Your task to perform on an android device: Search for vegetarian restaurants on Maps Image 0: 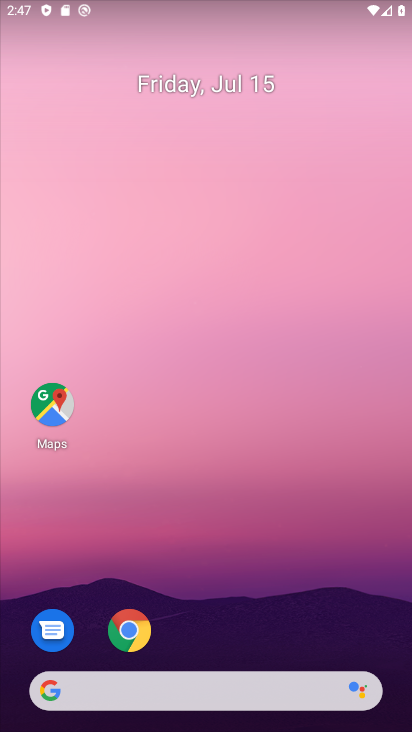
Step 0: click (61, 425)
Your task to perform on an android device: Search for vegetarian restaurants on Maps Image 1: 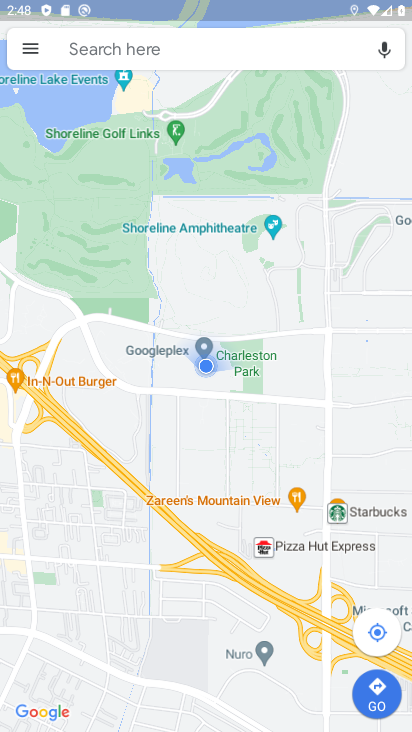
Step 1: click (24, 43)
Your task to perform on an android device: Search for vegetarian restaurants on Maps Image 2: 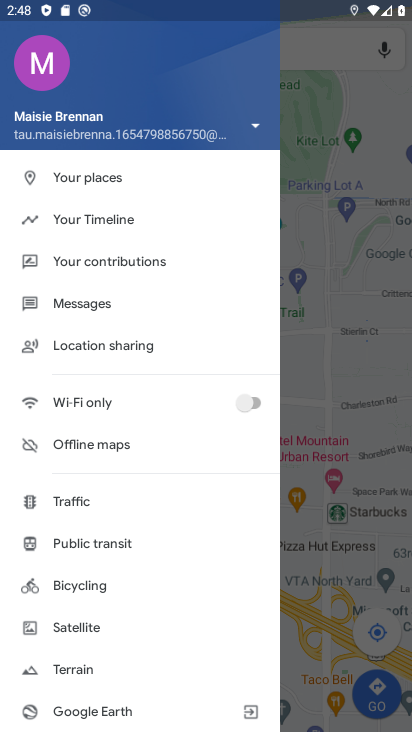
Step 2: click (401, 461)
Your task to perform on an android device: Search for vegetarian restaurants on Maps Image 3: 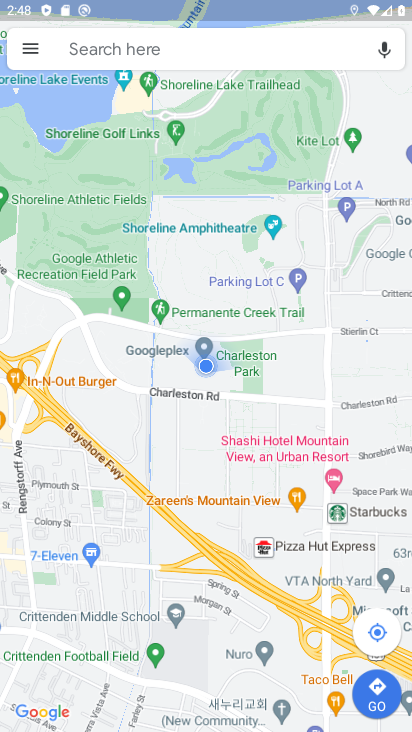
Step 3: click (203, 47)
Your task to perform on an android device: Search for vegetarian restaurants on Maps Image 4: 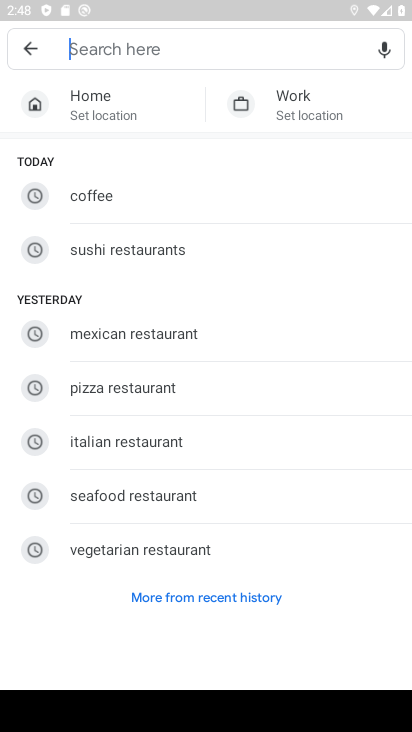
Step 4: click (214, 552)
Your task to perform on an android device: Search for vegetarian restaurants on Maps Image 5: 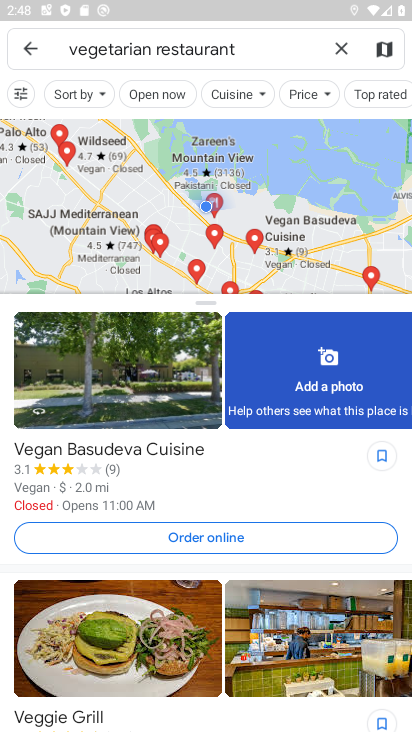
Step 5: task complete